Your task to perform on an android device: see sites visited before in the chrome app Image 0: 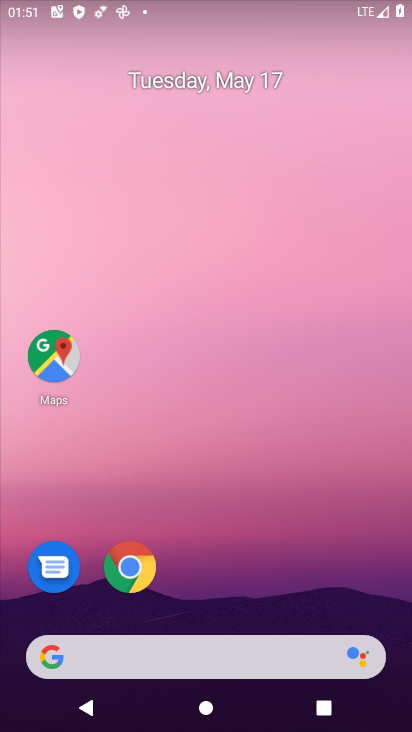
Step 0: click (126, 566)
Your task to perform on an android device: see sites visited before in the chrome app Image 1: 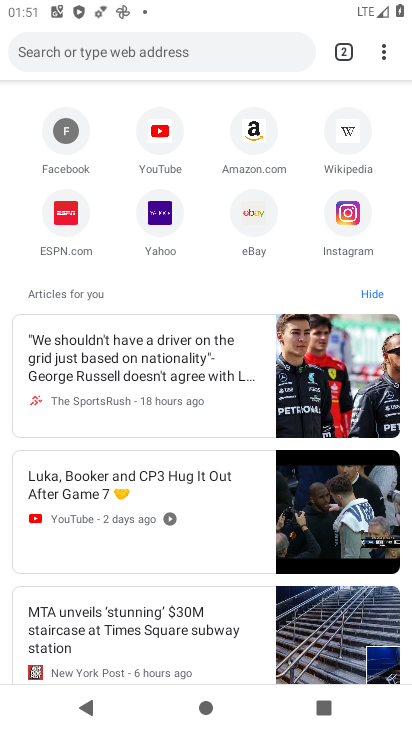
Step 1: click (382, 58)
Your task to perform on an android device: see sites visited before in the chrome app Image 2: 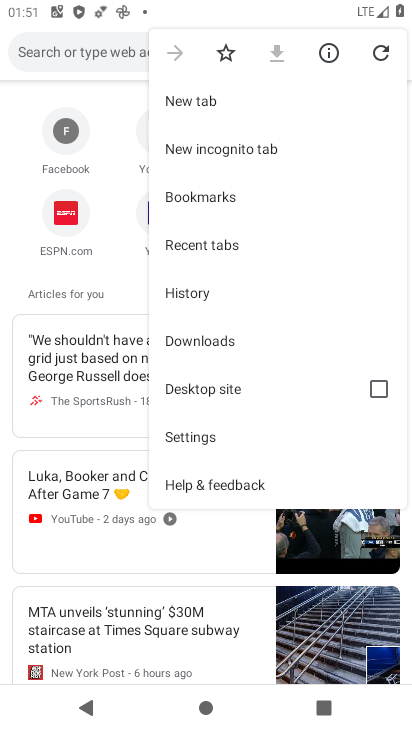
Step 2: click (185, 287)
Your task to perform on an android device: see sites visited before in the chrome app Image 3: 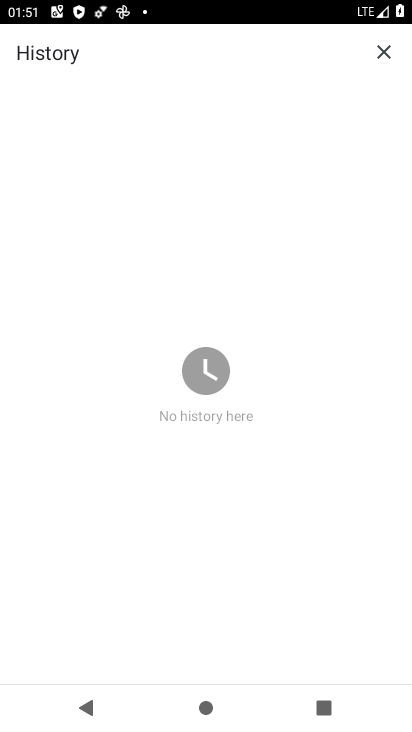
Step 3: task complete